Your task to perform on an android device: toggle improve location accuracy Image 0: 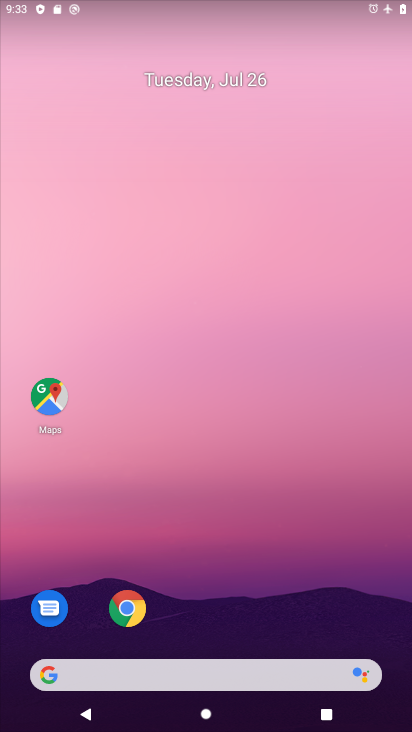
Step 0: drag from (233, 713) to (221, 129)
Your task to perform on an android device: toggle improve location accuracy Image 1: 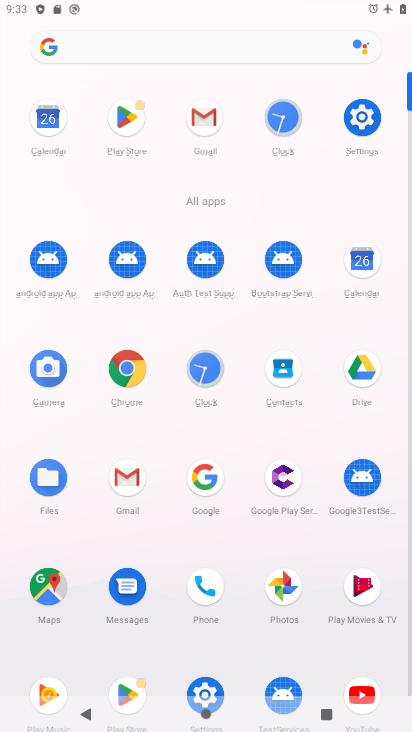
Step 1: click (358, 118)
Your task to perform on an android device: toggle improve location accuracy Image 2: 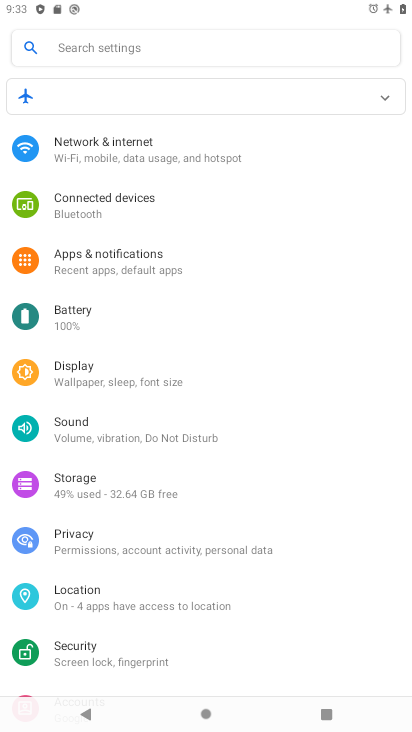
Step 2: click (64, 589)
Your task to perform on an android device: toggle improve location accuracy Image 3: 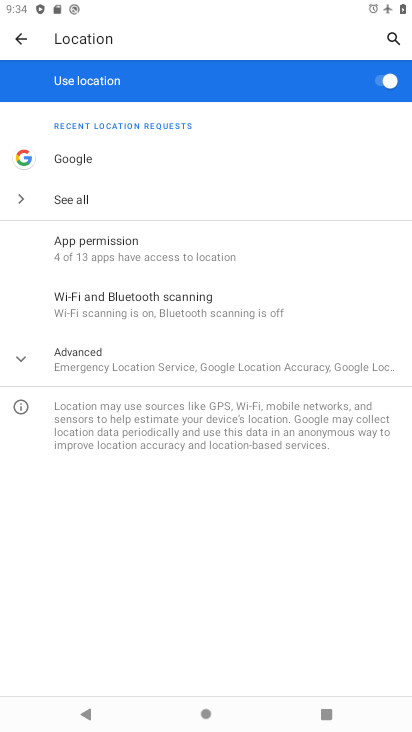
Step 3: click (93, 364)
Your task to perform on an android device: toggle improve location accuracy Image 4: 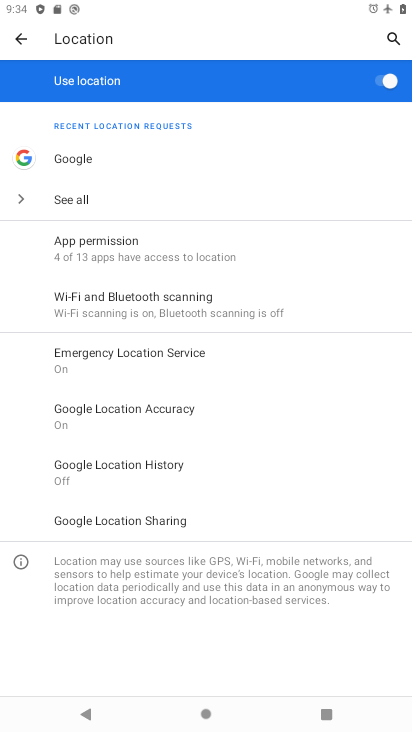
Step 4: click (164, 404)
Your task to perform on an android device: toggle improve location accuracy Image 5: 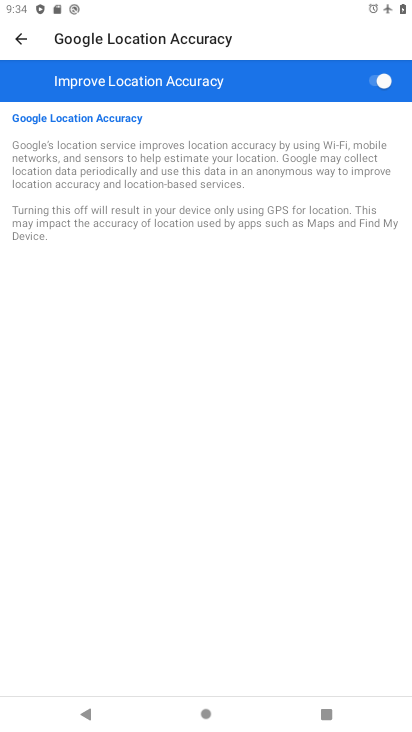
Step 5: click (380, 80)
Your task to perform on an android device: toggle improve location accuracy Image 6: 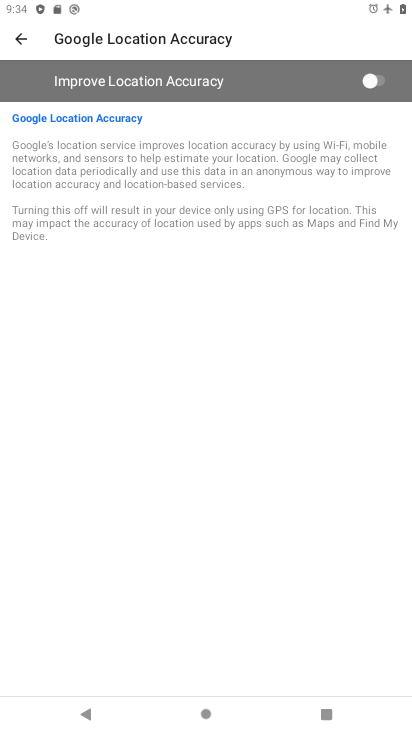
Step 6: task complete